Your task to perform on an android device: Open Google Maps Image 0: 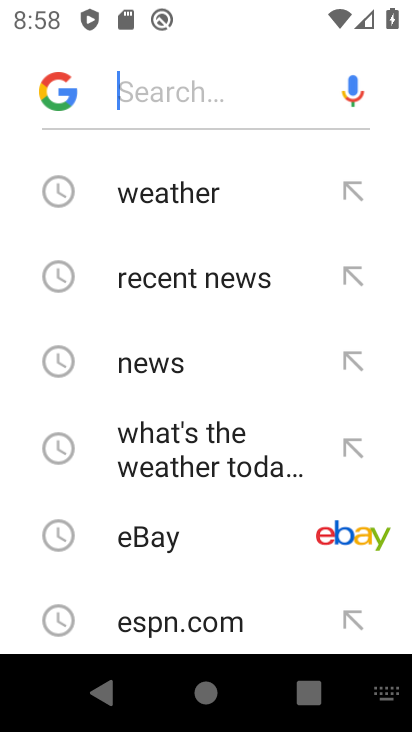
Step 0: press home button
Your task to perform on an android device: Open Google Maps Image 1: 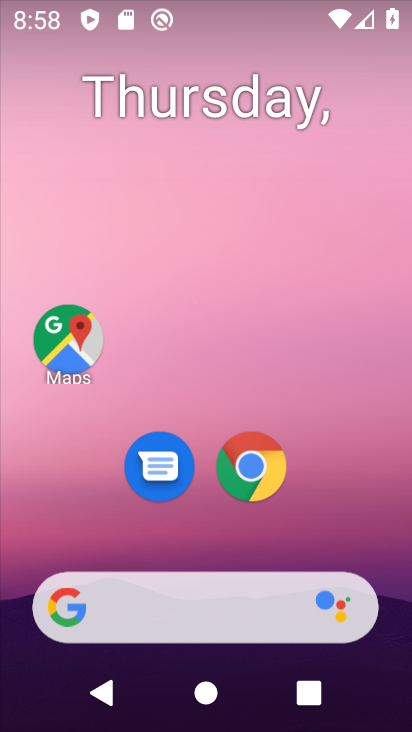
Step 1: click (64, 329)
Your task to perform on an android device: Open Google Maps Image 2: 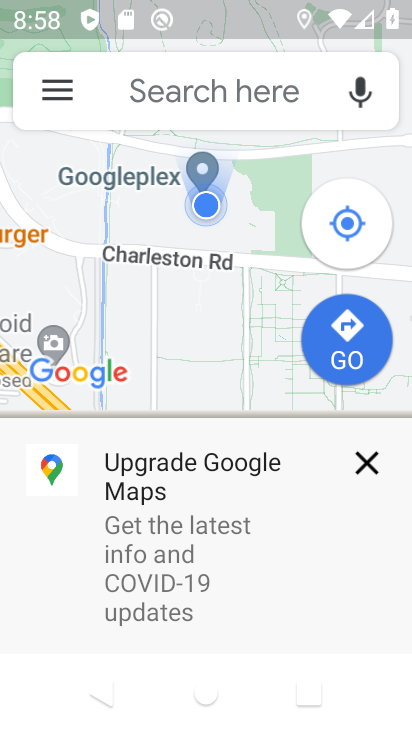
Step 2: click (361, 468)
Your task to perform on an android device: Open Google Maps Image 3: 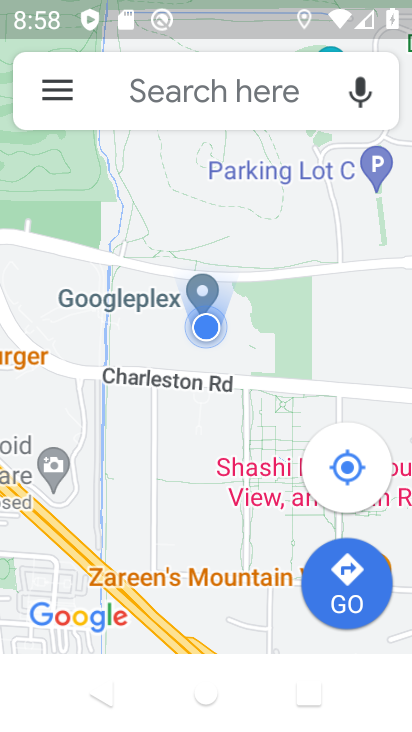
Step 3: task complete